Your task to perform on an android device: check android version Image 0: 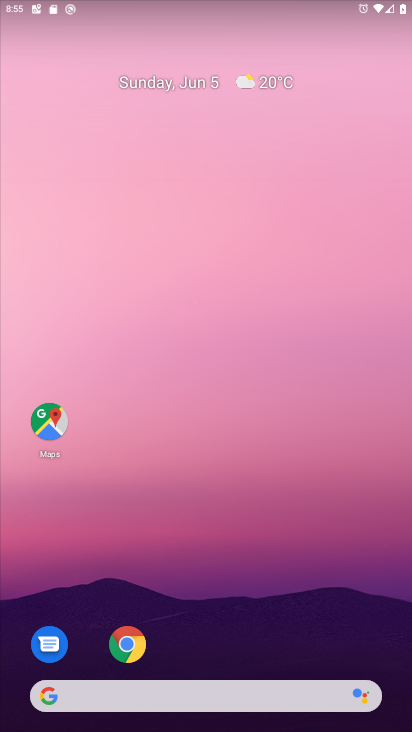
Step 0: drag from (231, 566) to (248, 206)
Your task to perform on an android device: check android version Image 1: 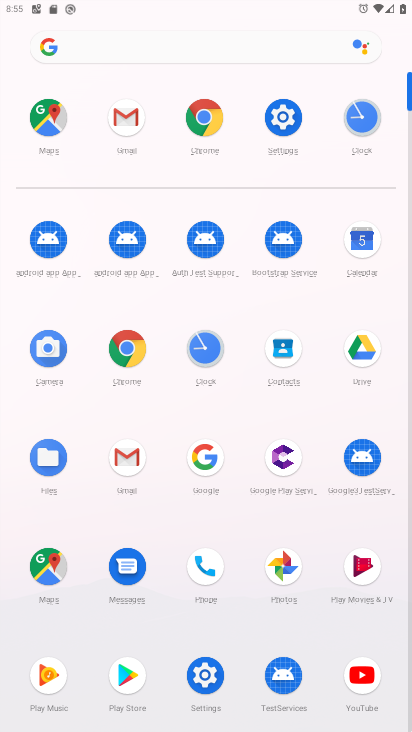
Step 1: click (221, 693)
Your task to perform on an android device: check android version Image 2: 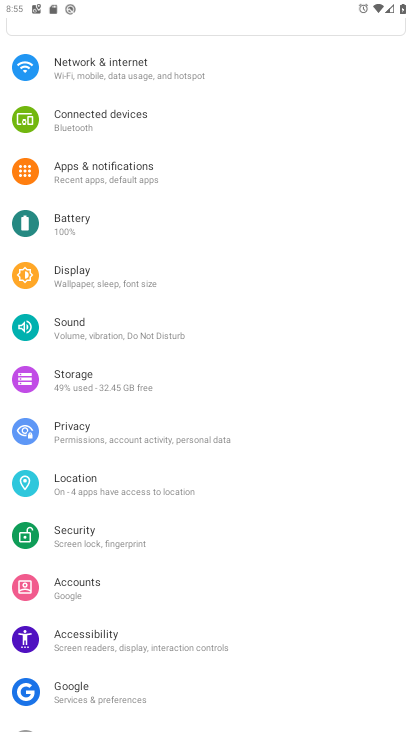
Step 2: drag from (171, 270) to (181, 168)
Your task to perform on an android device: check android version Image 3: 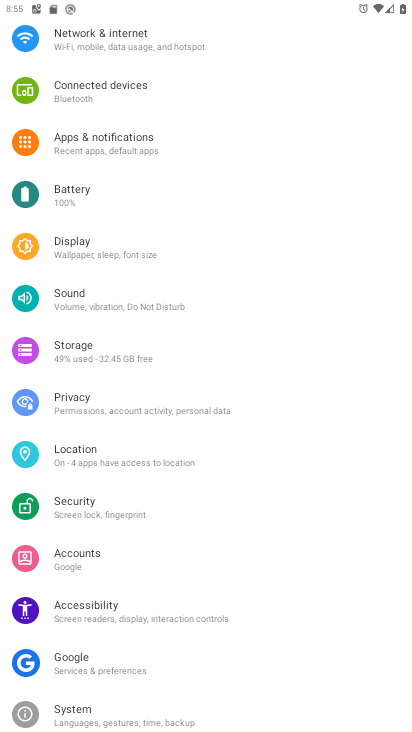
Step 3: drag from (120, 712) to (157, 296)
Your task to perform on an android device: check android version Image 4: 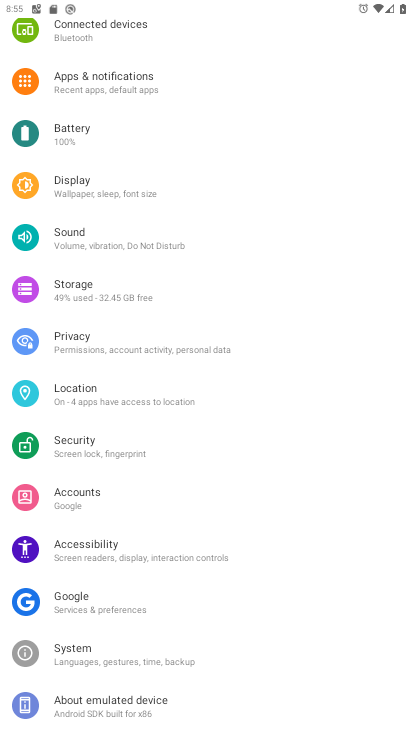
Step 4: click (160, 700)
Your task to perform on an android device: check android version Image 5: 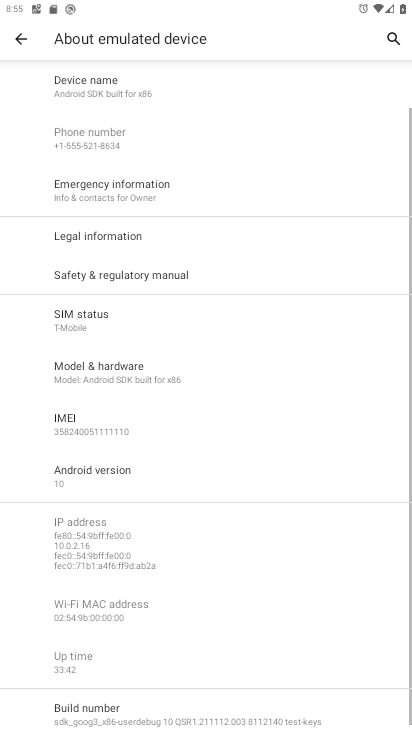
Step 5: drag from (144, 651) to (212, 383)
Your task to perform on an android device: check android version Image 6: 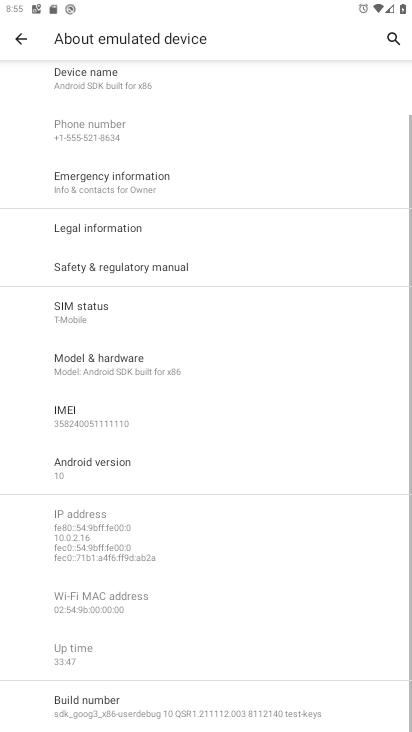
Step 6: click (72, 472)
Your task to perform on an android device: check android version Image 7: 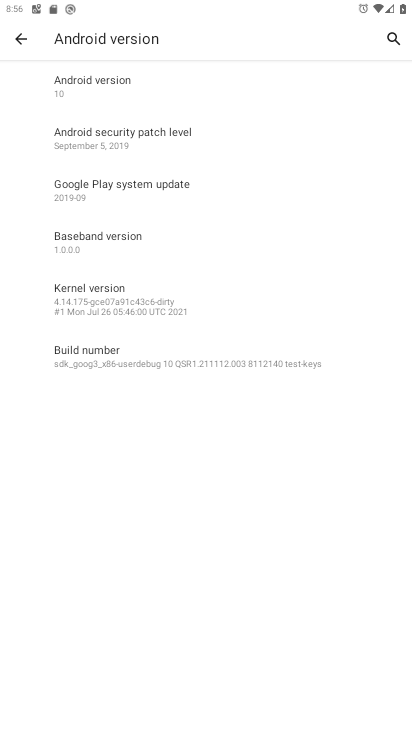
Step 7: task complete